Your task to perform on an android device: set the timer Image 0: 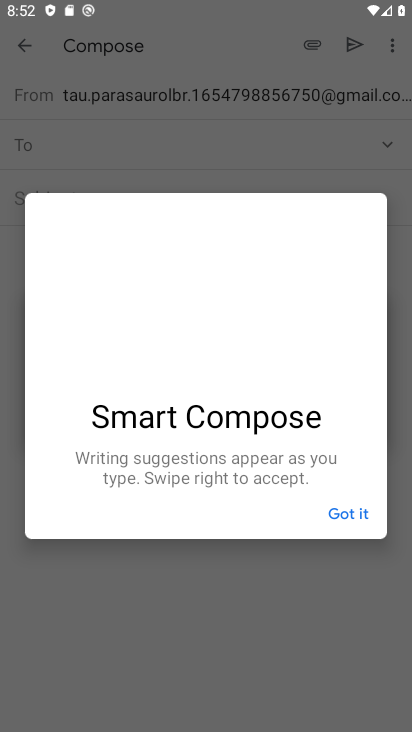
Step 0: press home button
Your task to perform on an android device: set the timer Image 1: 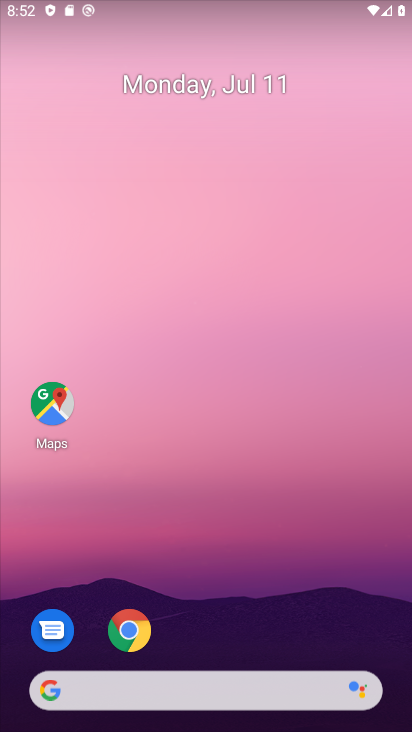
Step 1: drag from (237, 655) to (249, 211)
Your task to perform on an android device: set the timer Image 2: 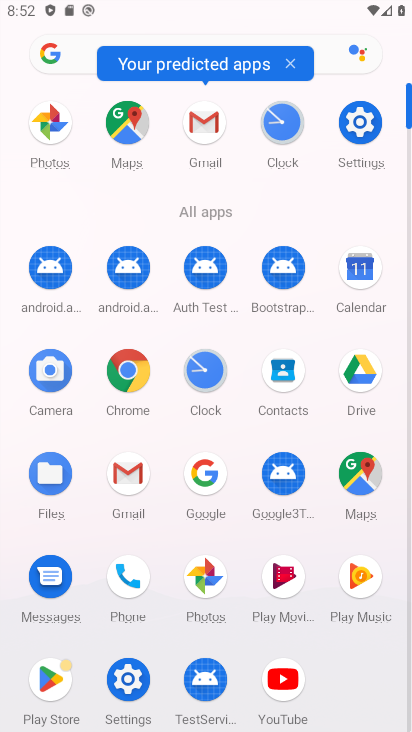
Step 2: click (201, 376)
Your task to perform on an android device: set the timer Image 3: 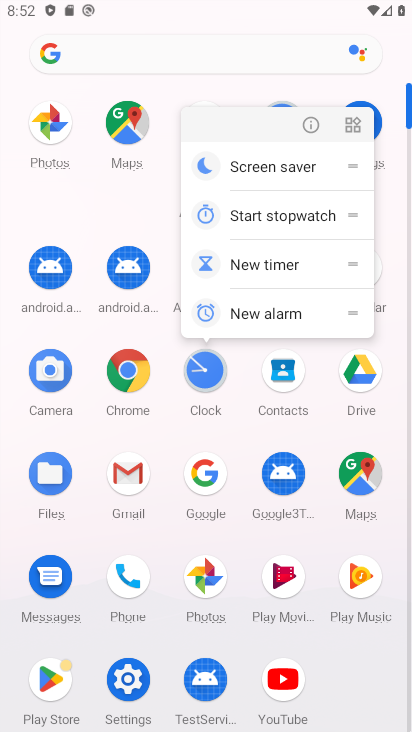
Step 3: click (202, 383)
Your task to perform on an android device: set the timer Image 4: 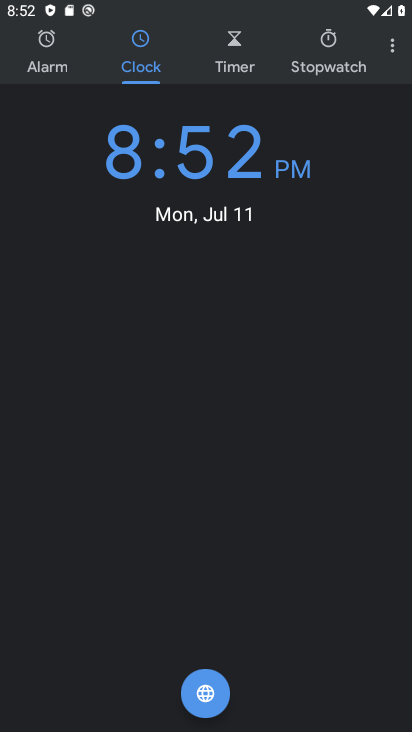
Step 4: click (241, 48)
Your task to perform on an android device: set the timer Image 5: 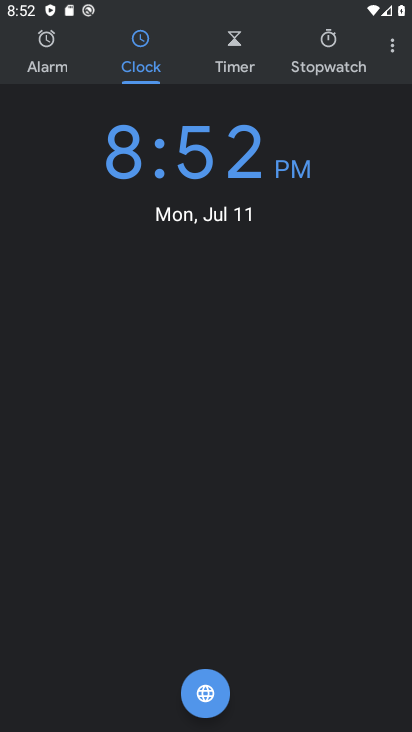
Step 5: click (231, 60)
Your task to perform on an android device: set the timer Image 6: 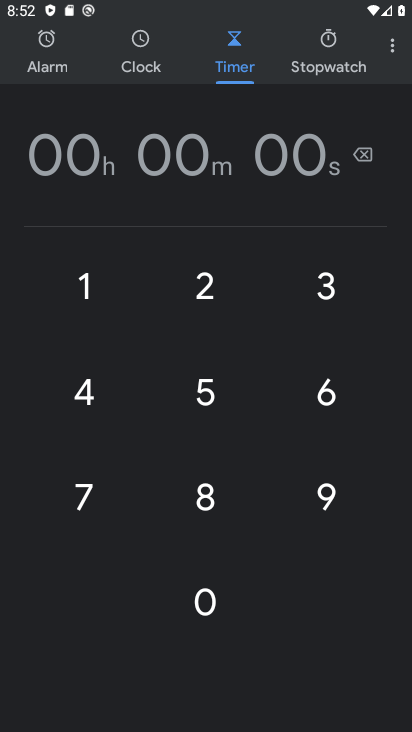
Step 6: click (206, 272)
Your task to perform on an android device: set the timer Image 7: 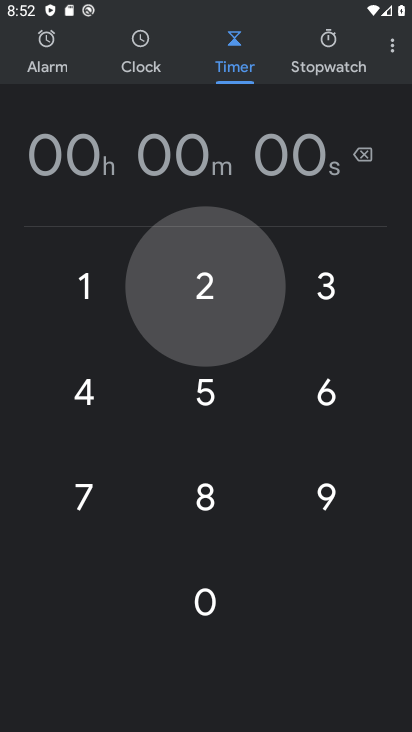
Step 7: click (204, 264)
Your task to perform on an android device: set the timer Image 8: 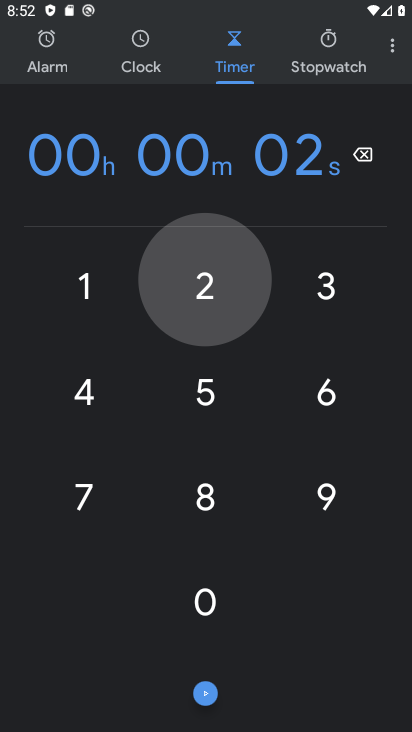
Step 8: click (205, 266)
Your task to perform on an android device: set the timer Image 9: 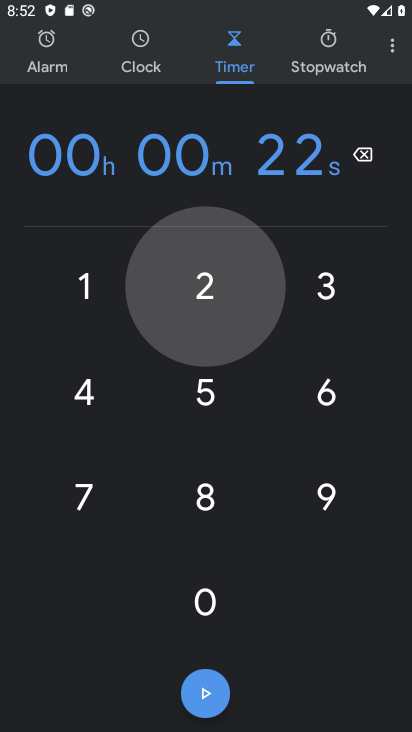
Step 9: click (205, 262)
Your task to perform on an android device: set the timer Image 10: 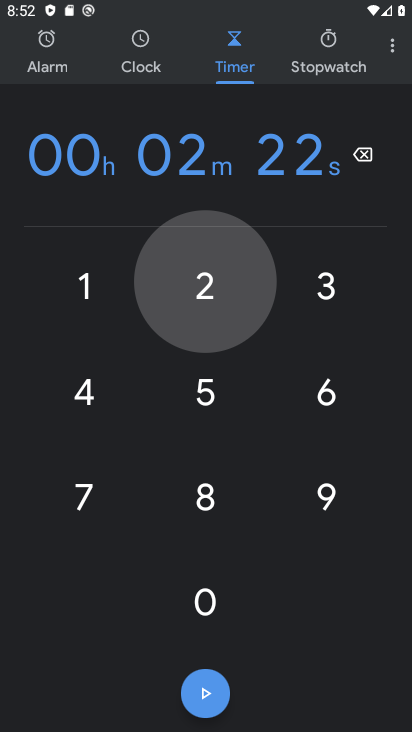
Step 10: click (205, 262)
Your task to perform on an android device: set the timer Image 11: 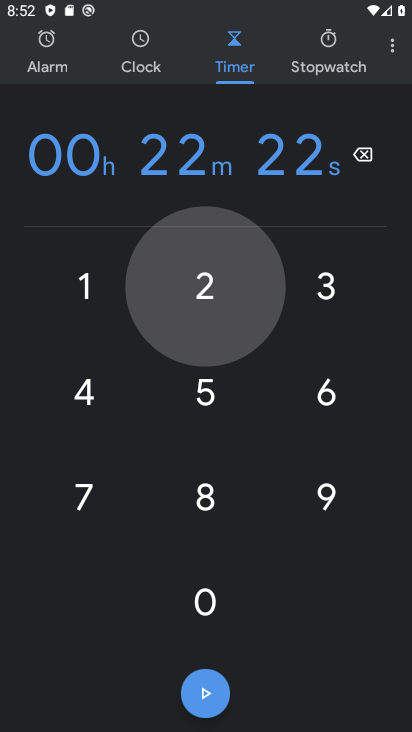
Step 11: click (205, 259)
Your task to perform on an android device: set the timer Image 12: 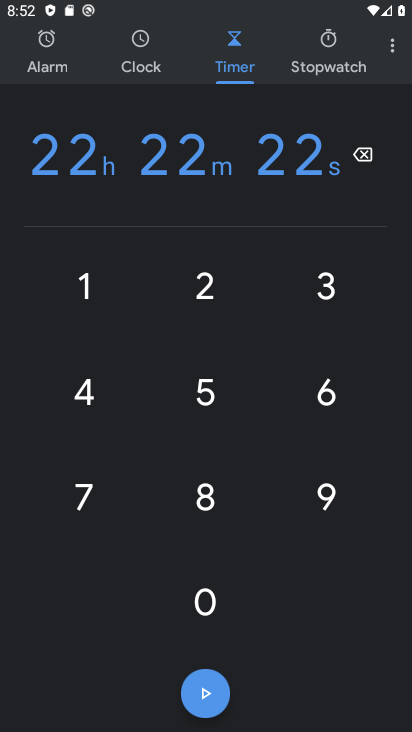
Step 12: click (205, 259)
Your task to perform on an android device: set the timer Image 13: 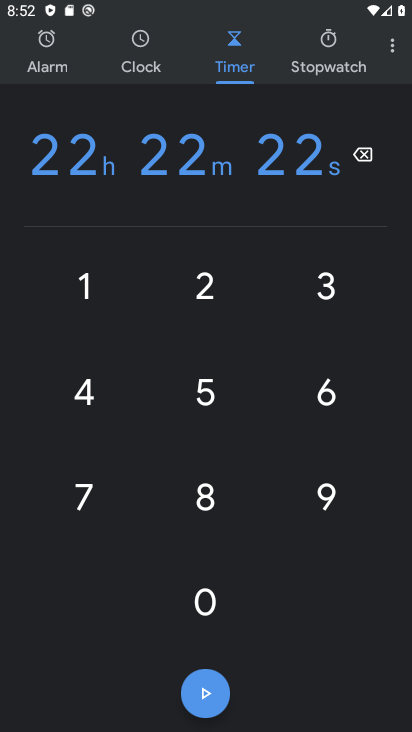
Step 13: click (220, 693)
Your task to perform on an android device: set the timer Image 14: 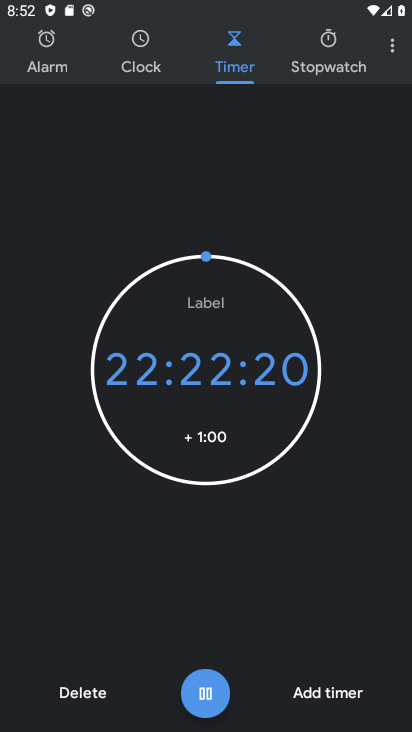
Step 14: task complete